Your task to perform on an android device: Open the calendar and show me this week's events? Image 0: 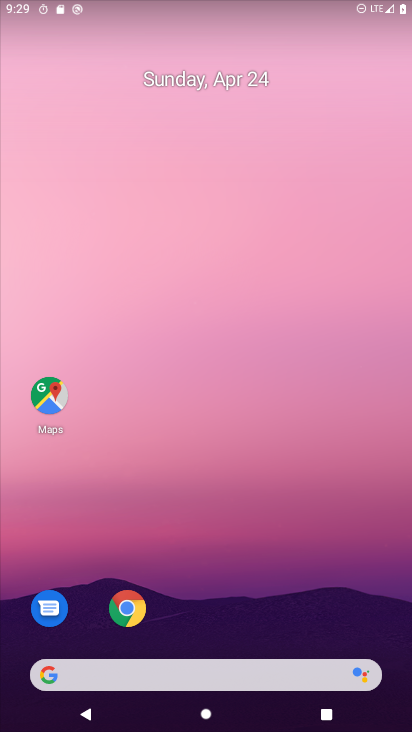
Step 0: drag from (282, 578) to (238, 75)
Your task to perform on an android device: Open the calendar and show me this week's events? Image 1: 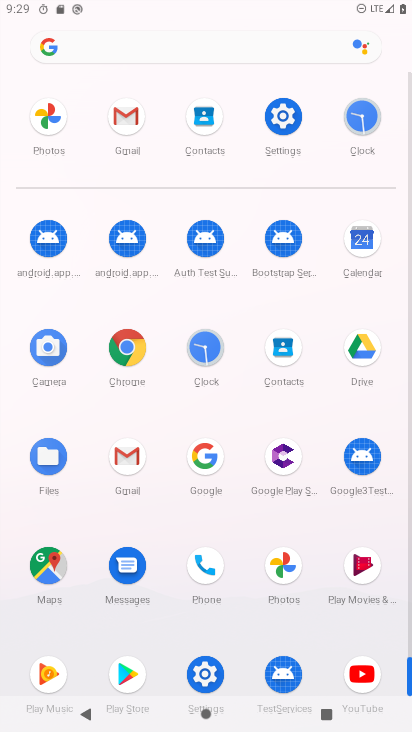
Step 1: click (363, 228)
Your task to perform on an android device: Open the calendar and show me this week's events? Image 2: 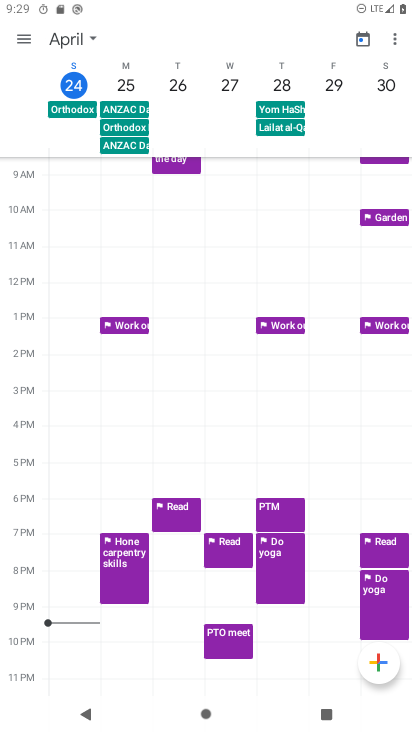
Step 2: task complete